Your task to perform on an android device: turn on data saver in the chrome app Image 0: 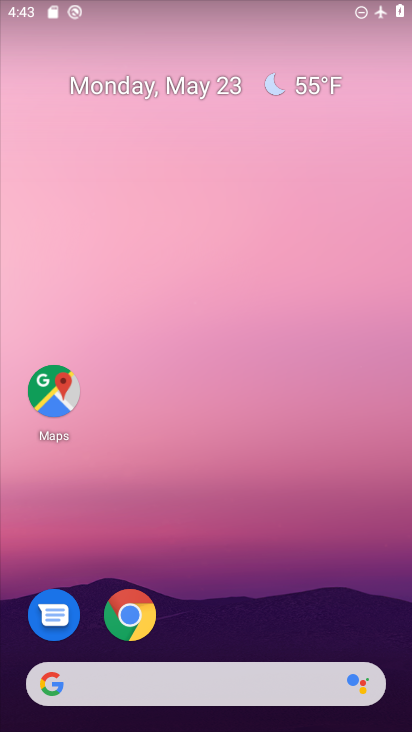
Step 0: drag from (363, 638) to (358, 128)
Your task to perform on an android device: turn on data saver in the chrome app Image 1: 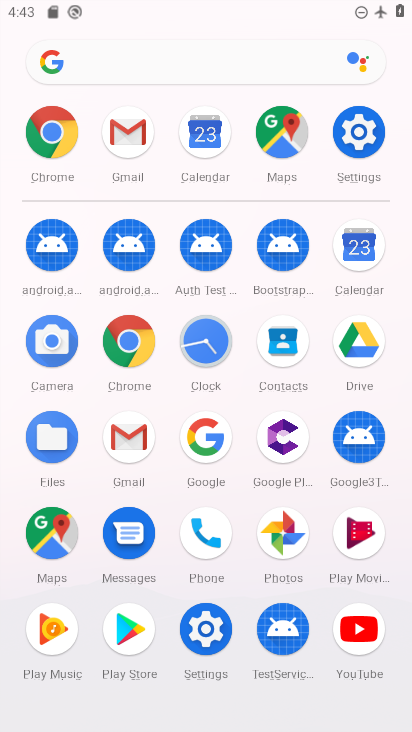
Step 1: click (141, 332)
Your task to perform on an android device: turn on data saver in the chrome app Image 2: 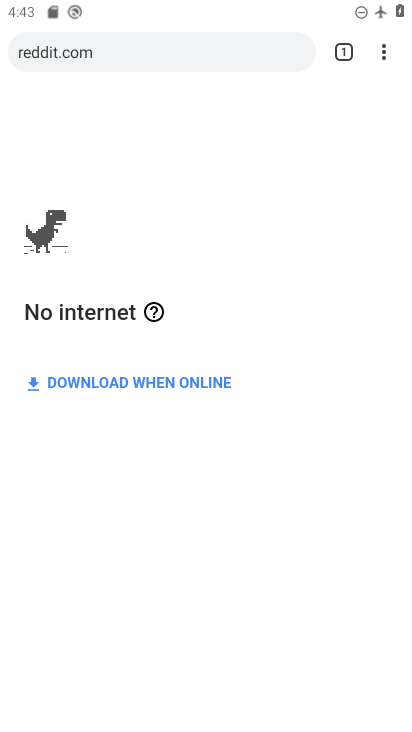
Step 2: click (384, 58)
Your task to perform on an android device: turn on data saver in the chrome app Image 3: 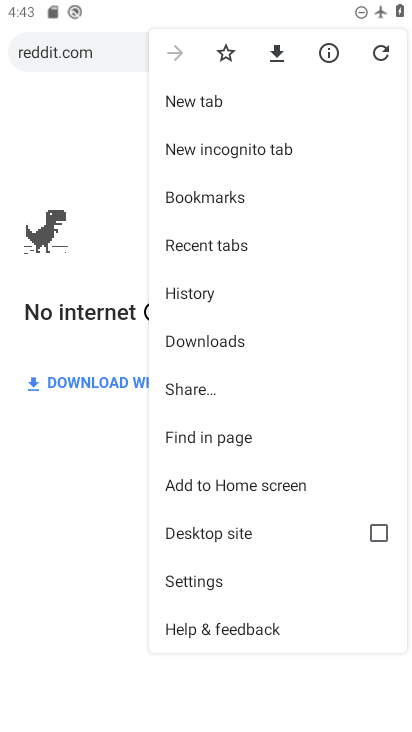
Step 3: click (215, 586)
Your task to perform on an android device: turn on data saver in the chrome app Image 4: 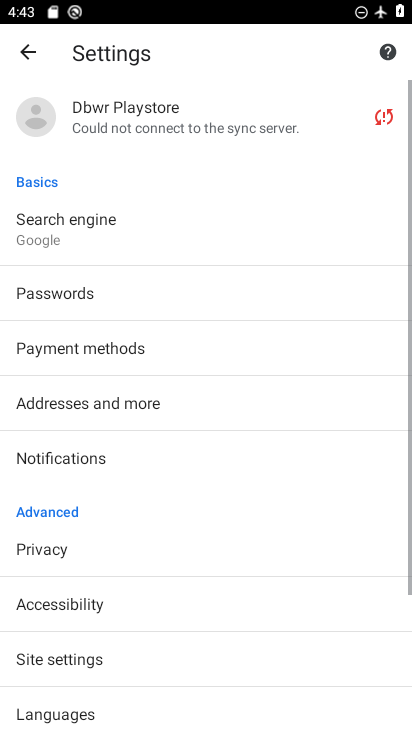
Step 4: drag from (330, 631) to (336, 457)
Your task to perform on an android device: turn on data saver in the chrome app Image 5: 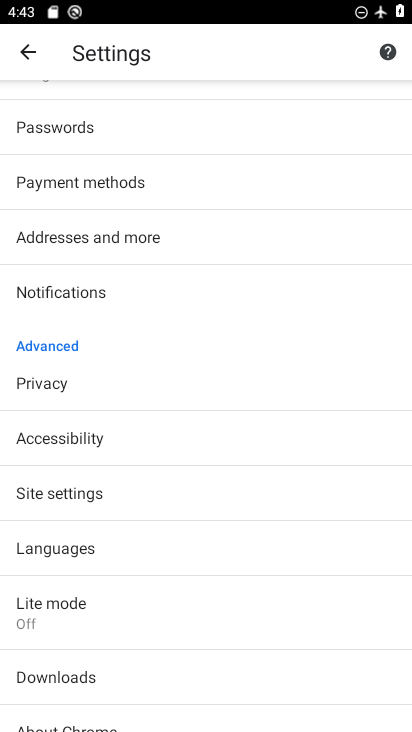
Step 5: drag from (334, 659) to (332, 520)
Your task to perform on an android device: turn on data saver in the chrome app Image 6: 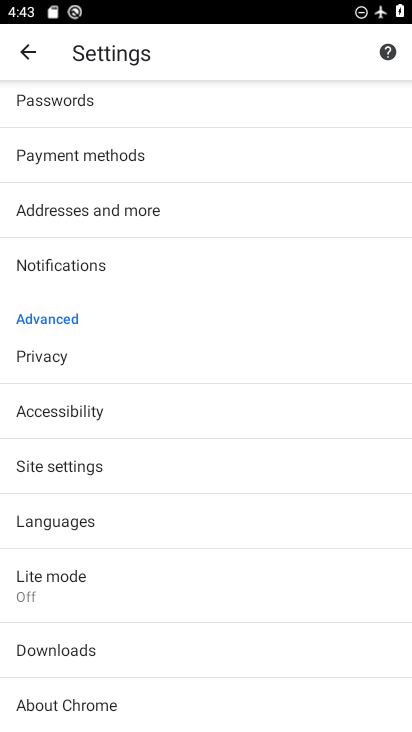
Step 6: drag from (329, 371) to (317, 481)
Your task to perform on an android device: turn on data saver in the chrome app Image 7: 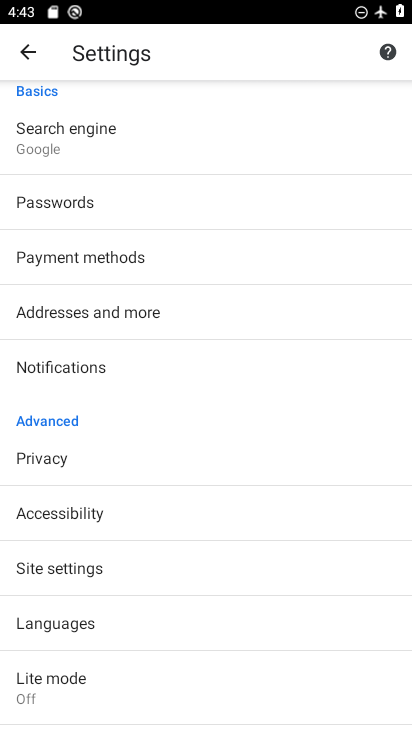
Step 7: drag from (295, 314) to (294, 478)
Your task to perform on an android device: turn on data saver in the chrome app Image 8: 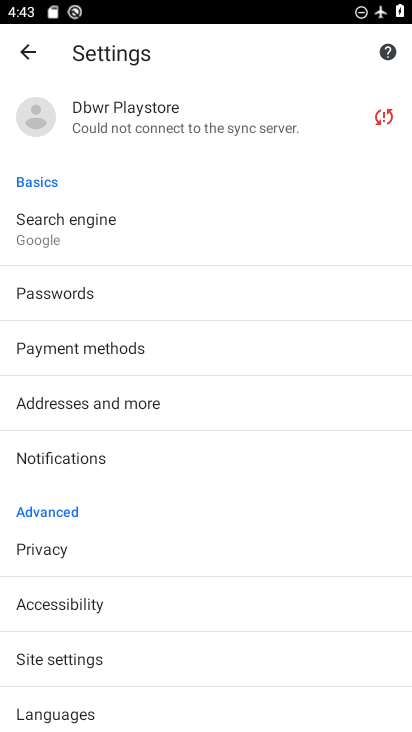
Step 8: drag from (279, 615) to (280, 468)
Your task to perform on an android device: turn on data saver in the chrome app Image 9: 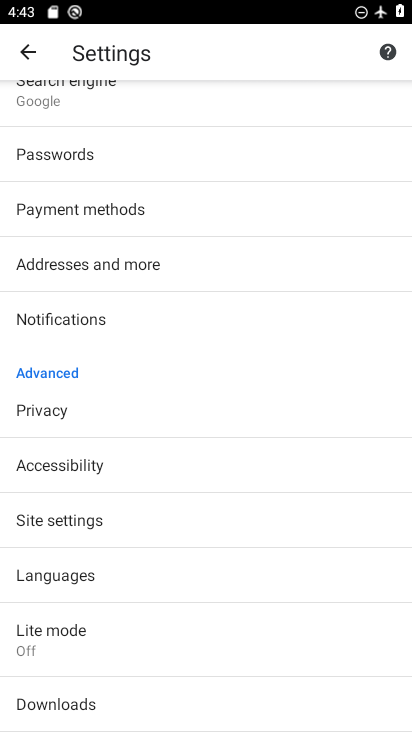
Step 9: drag from (264, 625) to (271, 505)
Your task to perform on an android device: turn on data saver in the chrome app Image 10: 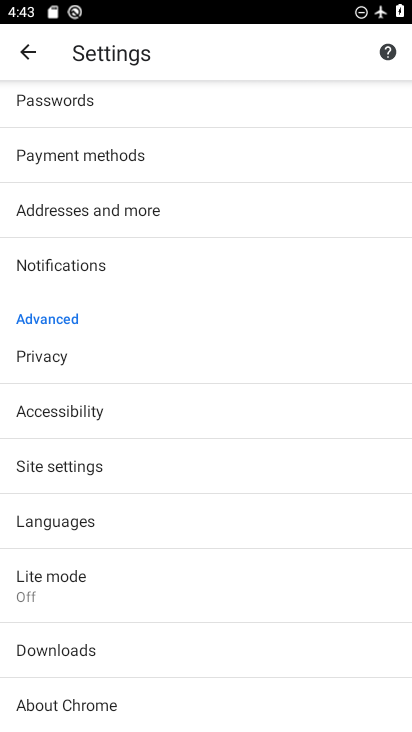
Step 10: click (144, 596)
Your task to perform on an android device: turn on data saver in the chrome app Image 11: 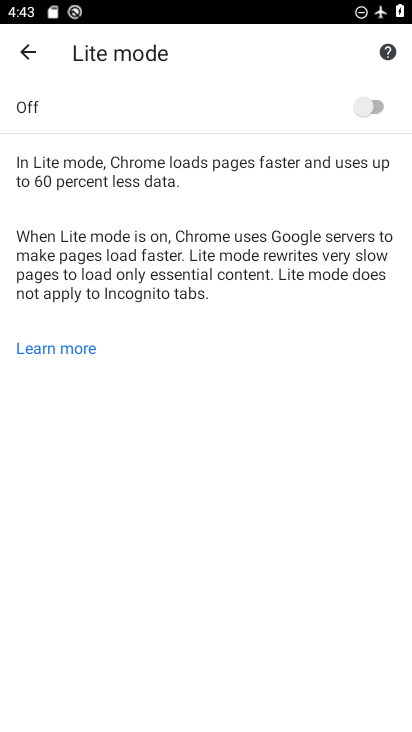
Step 11: click (367, 111)
Your task to perform on an android device: turn on data saver in the chrome app Image 12: 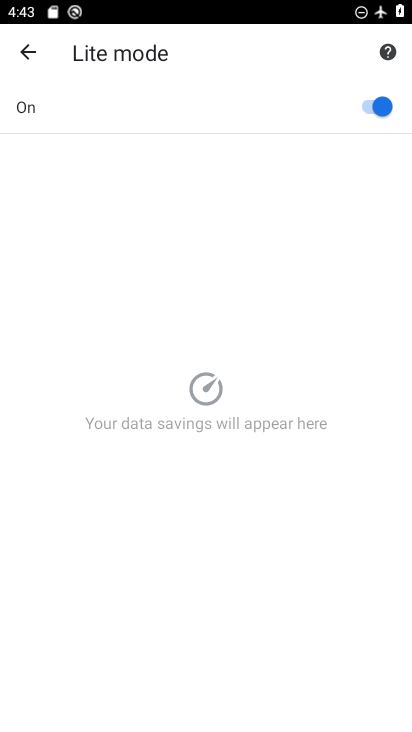
Step 12: task complete